Your task to perform on an android device: Open calendar and show me the third week of next month Image 0: 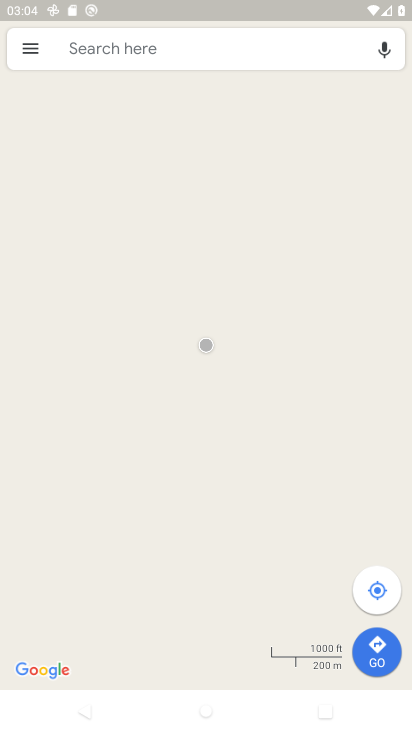
Step 0: press home button
Your task to perform on an android device: Open calendar and show me the third week of next month Image 1: 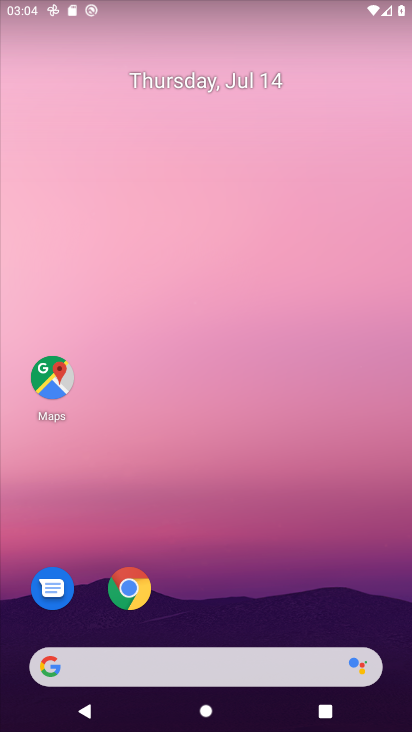
Step 1: drag from (324, 633) to (209, 193)
Your task to perform on an android device: Open calendar and show me the third week of next month Image 2: 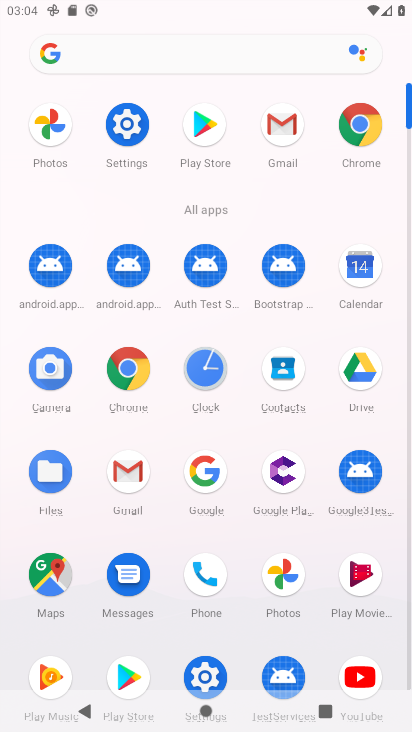
Step 2: click (364, 262)
Your task to perform on an android device: Open calendar and show me the third week of next month Image 3: 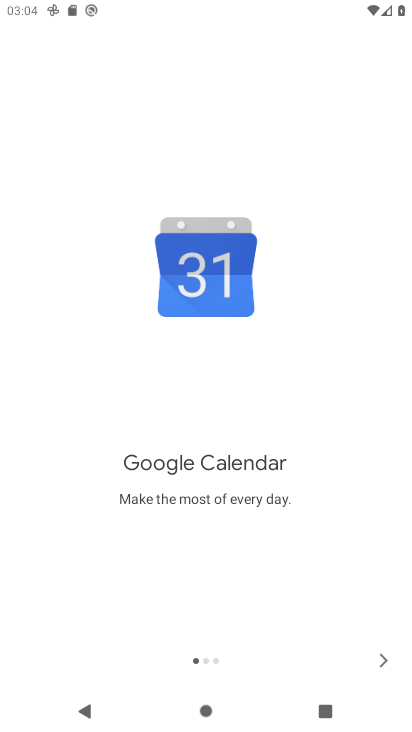
Step 3: click (383, 664)
Your task to perform on an android device: Open calendar and show me the third week of next month Image 4: 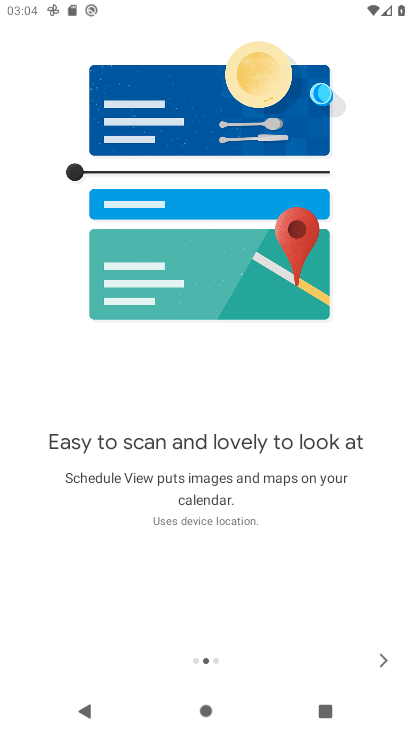
Step 4: click (381, 664)
Your task to perform on an android device: Open calendar and show me the third week of next month Image 5: 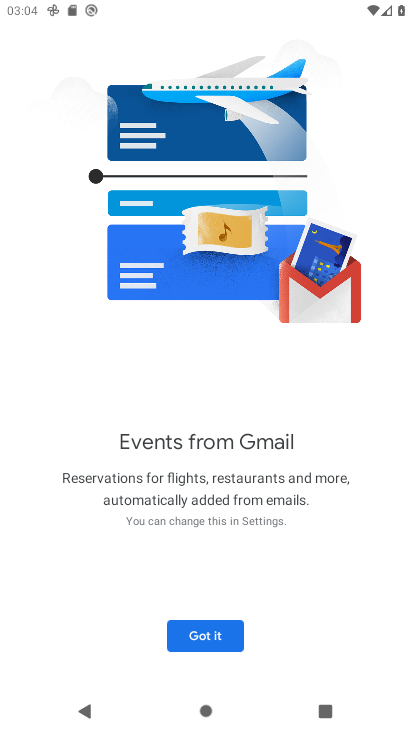
Step 5: click (202, 639)
Your task to perform on an android device: Open calendar and show me the third week of next month Image 6: 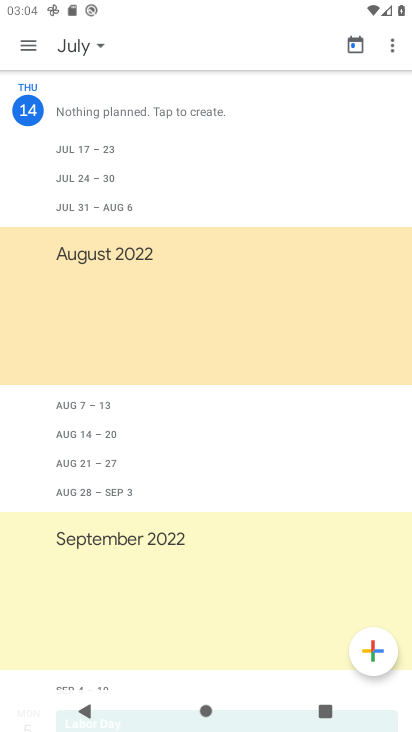
Step 6: click (33, 46)
Your task to perform on an android device: Open calendar and show me the third week of next month Image 7: 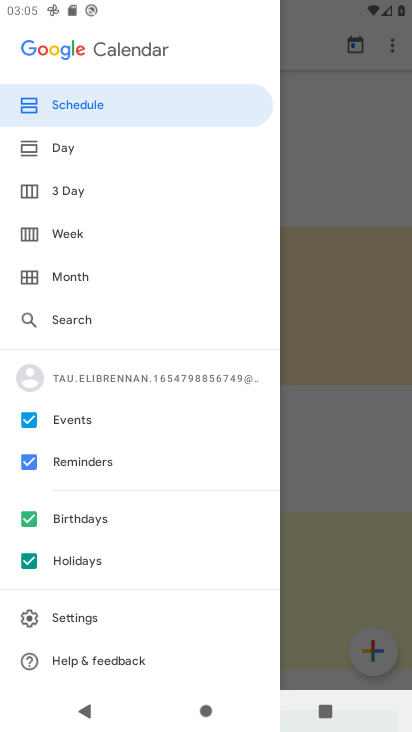
Step 7: click (60, 243)
Your task to perform on an android device: Open calendar and show me the third week of next month Image 8: 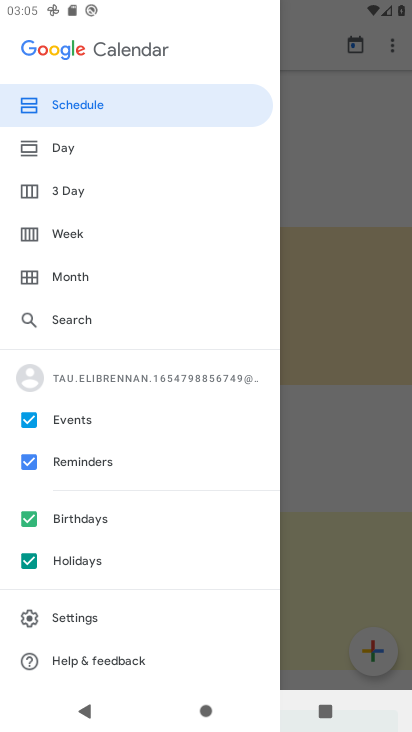
Step 8: click (62, 236)
Your task to perform on an android device: Open calendar and show me the third week of next month Image 9: 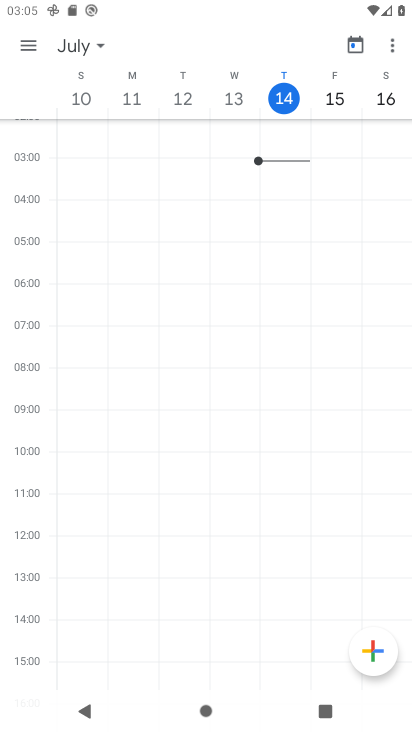
Step 9: click (89, 50)
Your task to perform on an android device: Open calendar and show me the third week of next month Image 10: 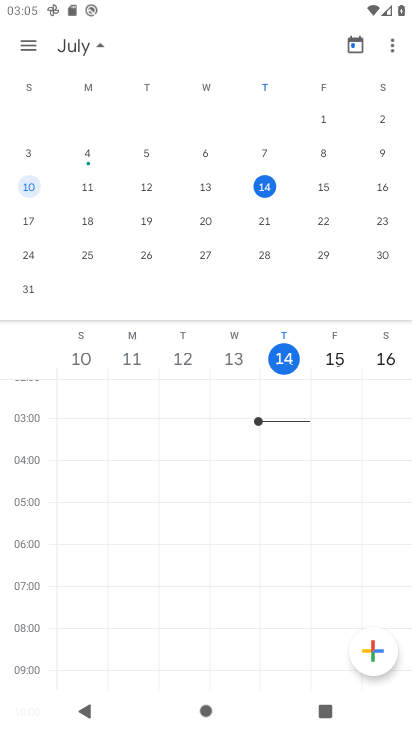
Step 10: drag from (366, 206) to (11, 211)
Your task to perform on an android device: Open calendar and show me the third week of next month Image 11: 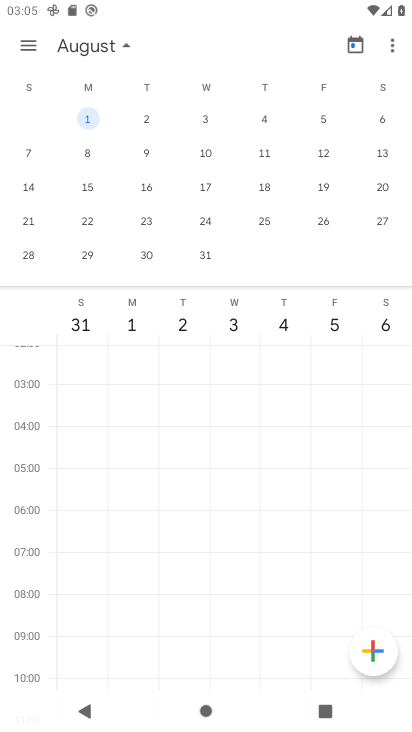
Step 11: click (209, 180)
Your task to perform on an android device: Open calendar and show me the third week of next month Image 12: 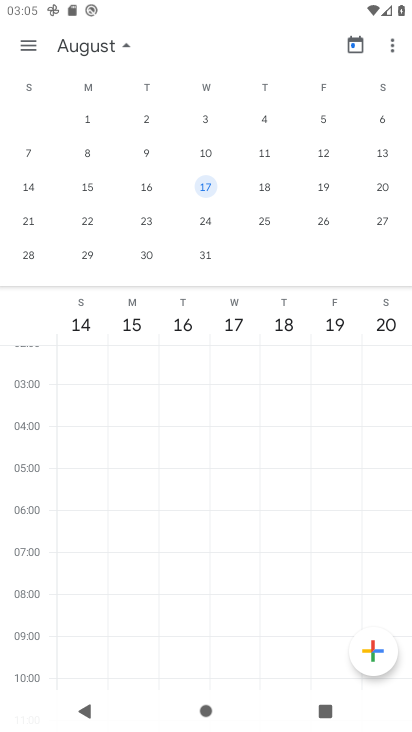
Step 12: task complete